Your task to perform on an android device: turn off wifi Image 0: 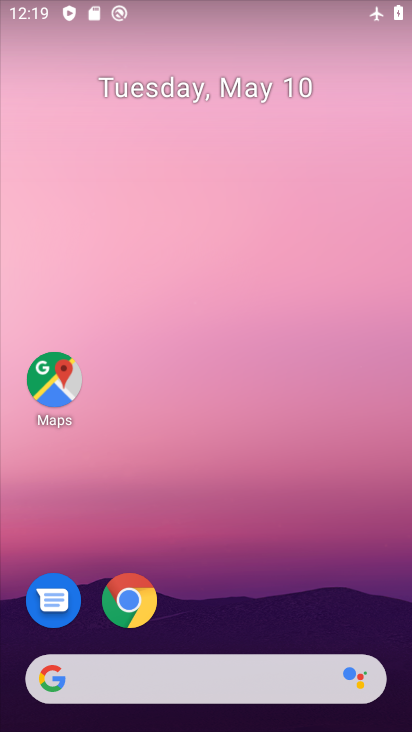
Step 0: drag from (251, 715) to (216, 9)
Your task to perform on an android device: turn off wifi Image 1: 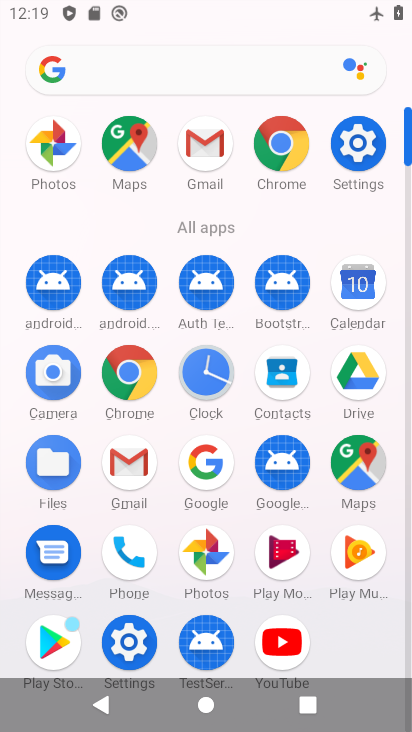
Step 1: click (383, 169)
Your task to perform on an android device: turn off wifi Image 2: 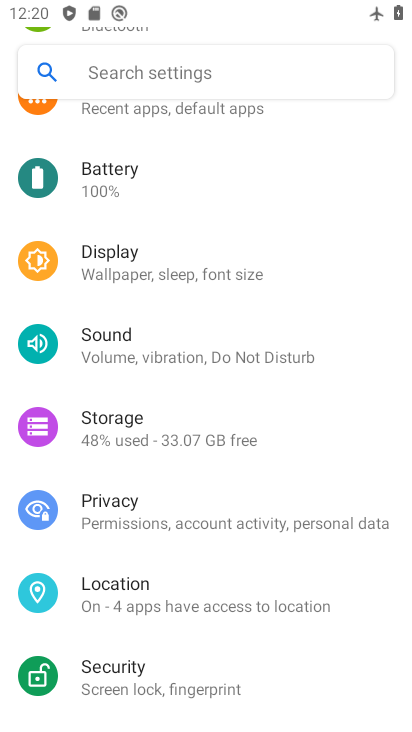
Step 2: drag from (173, 313) to (133, 694)
Your task to perform on an android device: turn off wifi Image 3: 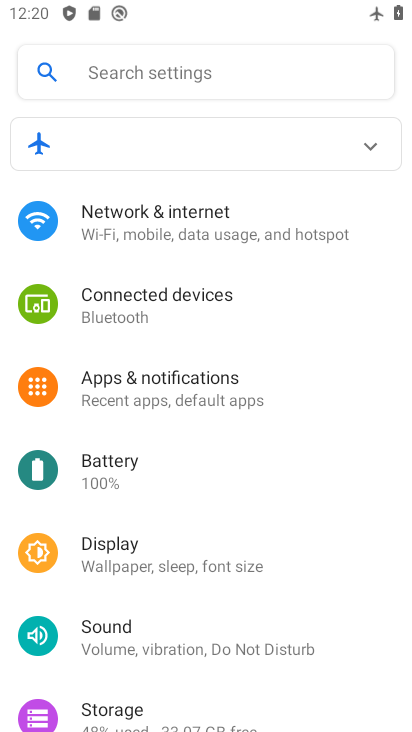
Step 3: click (267, 240)
Your task to perform on an android device: turn off wifi Image 4: 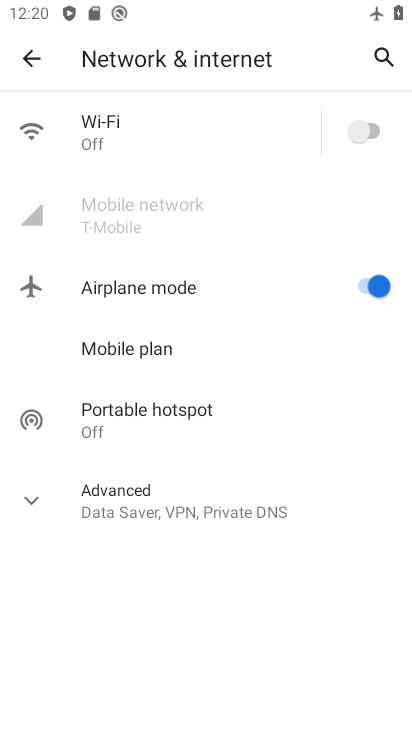
Step 4: click (132, 472)
Your task to perform on an android device: turn off wifi Image 5: 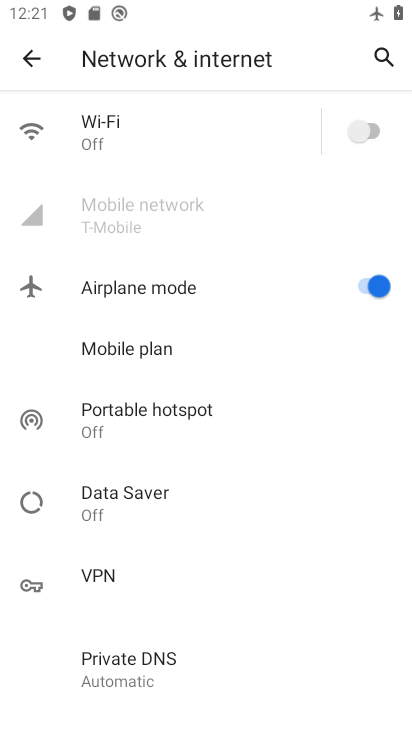
Step 5: task complete